Your task to perform on an android device: turn pop-ups off in chrome Image 0: 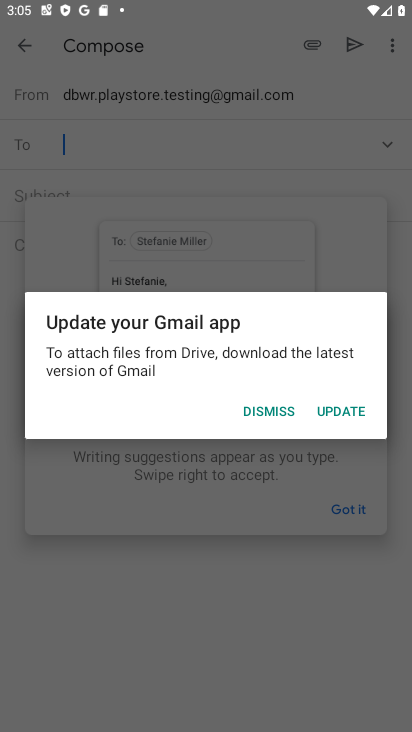
Step 0: press back button
Your task to perform on an android device: turn pop-ups off in chrome Image 1: 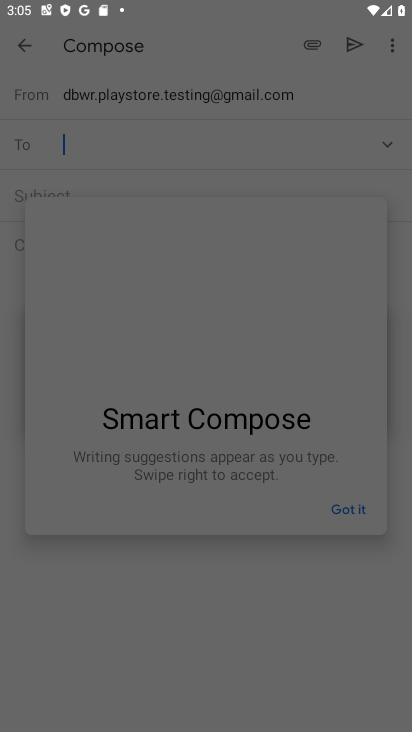
Step 1: press back button
Your task to perform on an android device: turn pop-ups off in chrome Image 2: 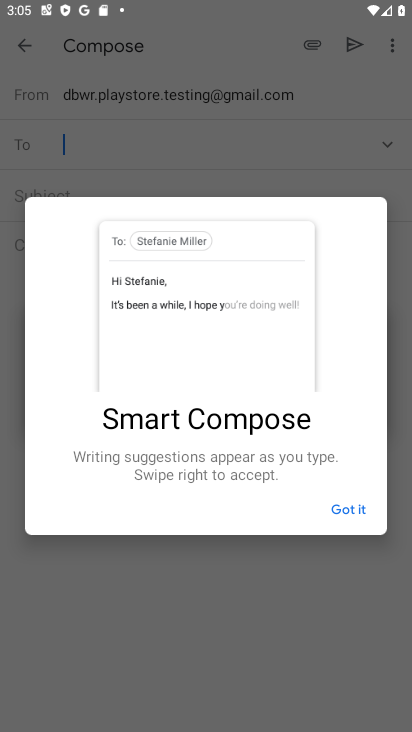
Step 2: press home button
Your task to perform on an android device: turn pop-ups off in chrome Image 3: 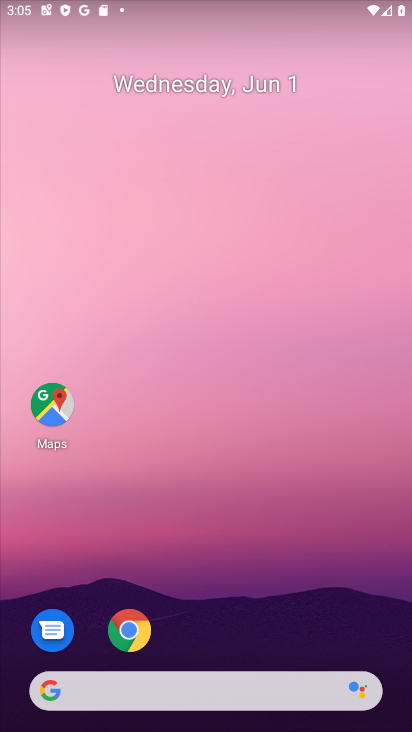
Step 3: click (131, 629)
Your task to perform on an android device: turn pop-ups off in chrome Image 4: 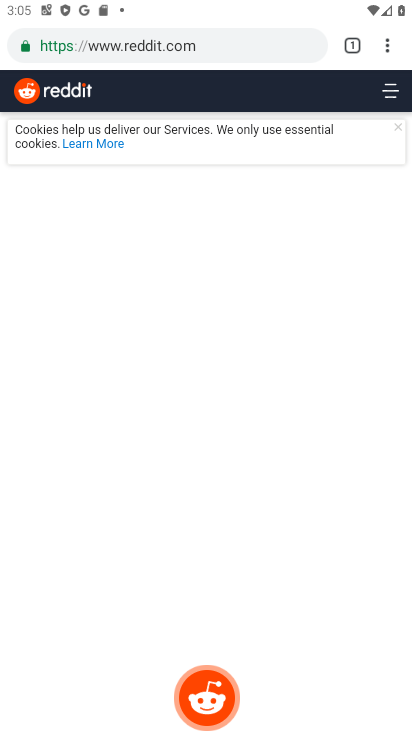
Step 4: drag from (392, 40) to (209, 538)
Your task to perform on an android device: turn pop-ups off in chrome Image 5: 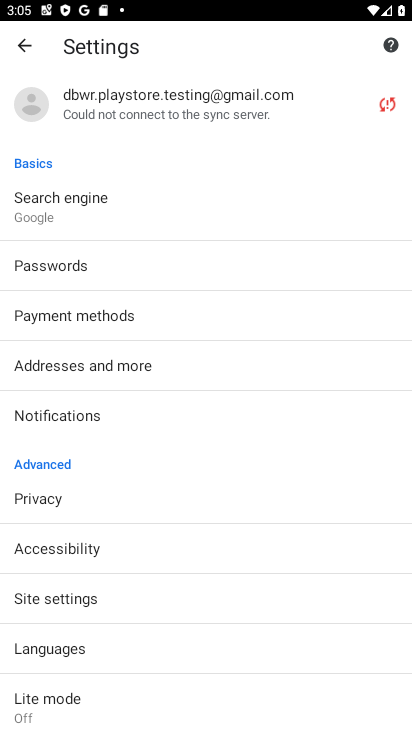
Step 5: click (82, 601)
Your task to perform on an android device: turn pop-ups off in chrome Image 6: 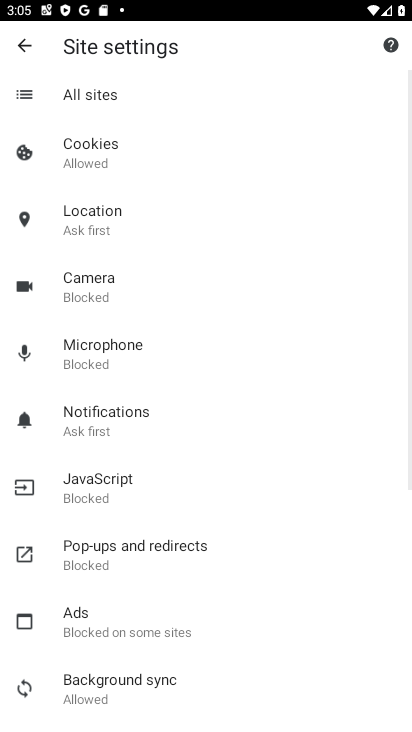
Step 6: click (124, 547)
Your task to perform on an android device: turn pop-ups off in chrome Image 7: 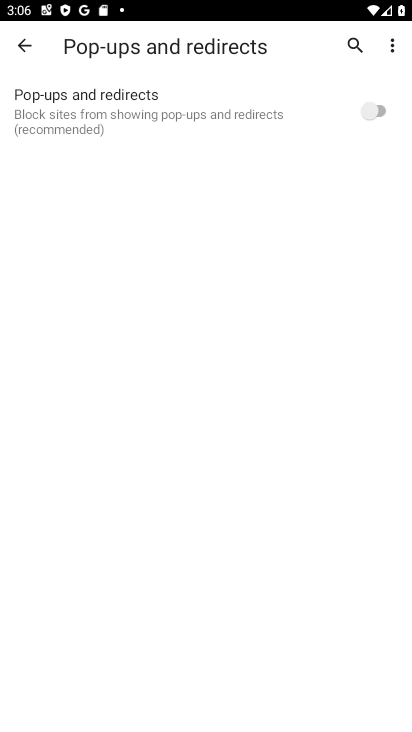
Step 7: task complete